Your task to perform on an android device: open a bookmark in the chrome app Image 0: 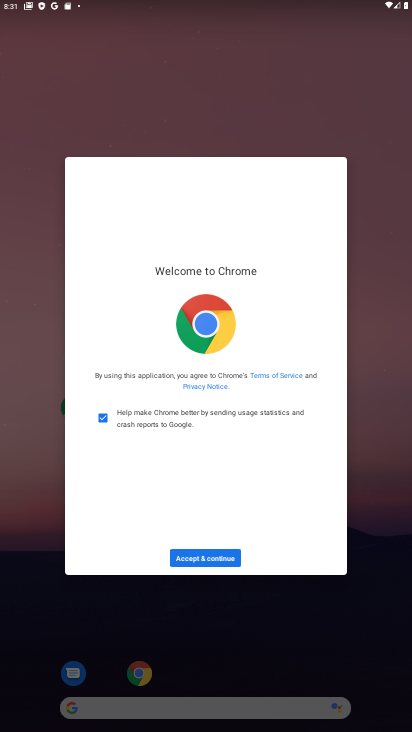
Step 0: click (219, 554)
Your task to perform on an android device: open a bookmark in the chrome app Image 1: 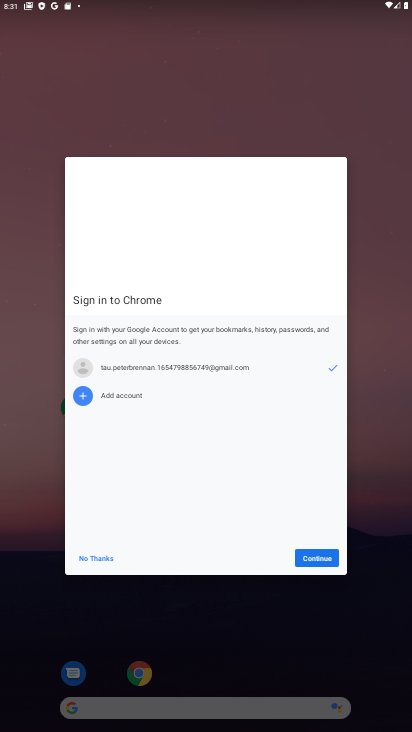
Step 1: click (305, 555)
Your task to perform on an android device: open a bookmark in the chrome app Image 2: 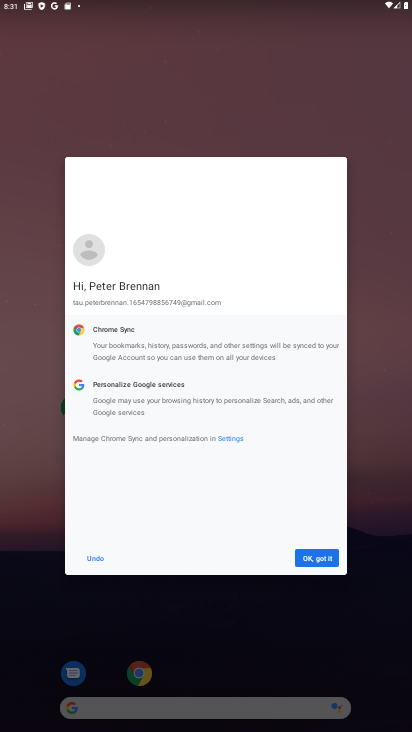
Step 2: click (305, 555)
Your task to perform on an android device: open a bookmark in the chrome app Image 3: 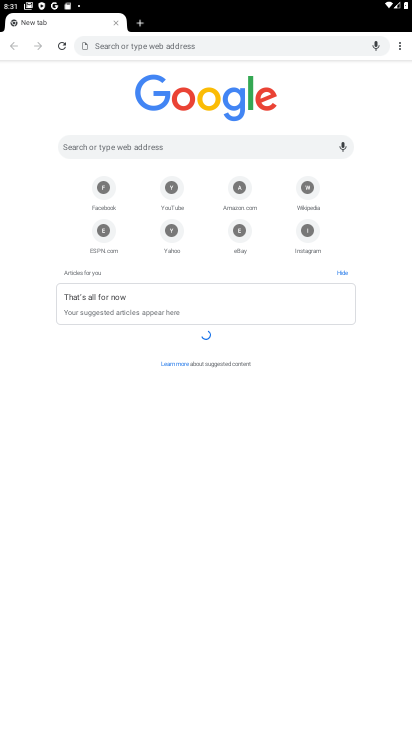
Step 3: click (395, 48)
Your task to perform on an android device: open a bookmark in the chrome app Image 4: 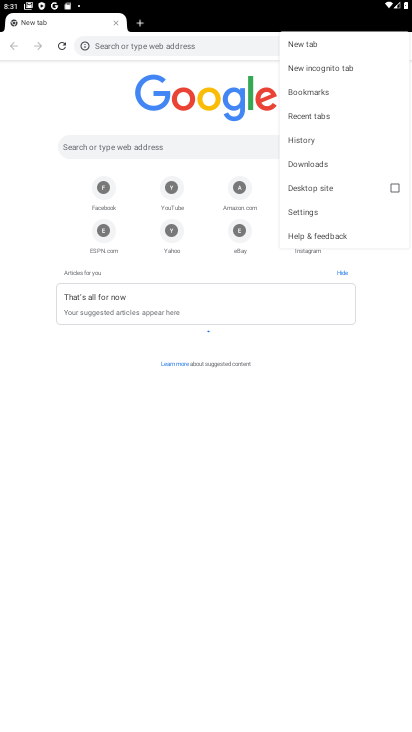
Step 4: click (313, 90)
Your task to perform on an android device: open a bookmark in the chrome app Image 5: 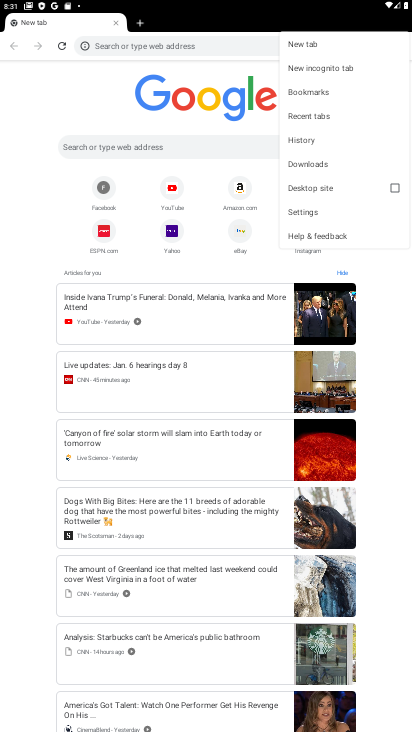
Step 5: click (327, 92)
Your task to perform on an android device: open a bookmark in the chrome app Image 6: 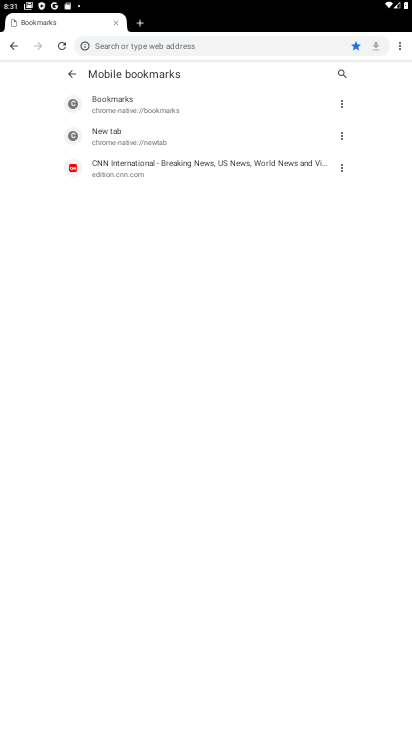
Step 6: click (112, 162)
Your task to perform on an android device: open a bookmark in the chrome app Image 7: 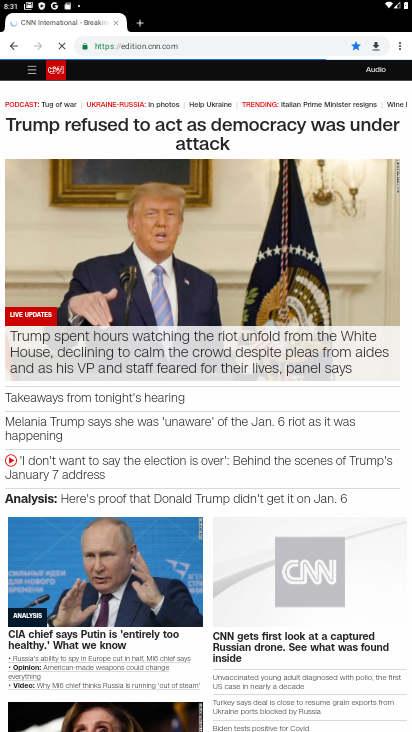
Step 7: task complete